Your task to perform on an android device: turn on the 24-hour format for clock Image 0: 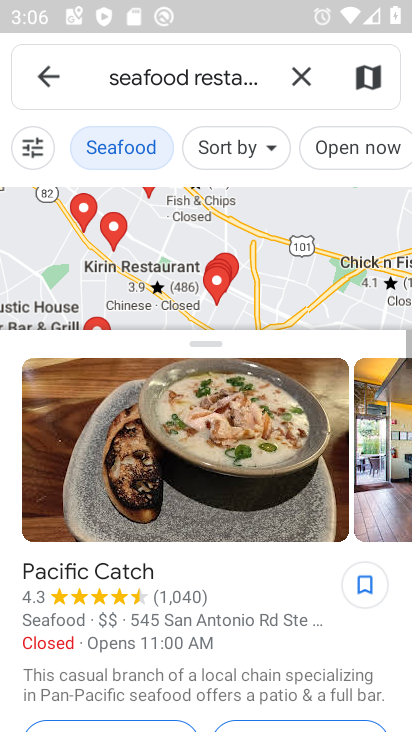
Step 0: press home button
Your task to perform on an android device: turn on the 24-hour format for clock Image 1: 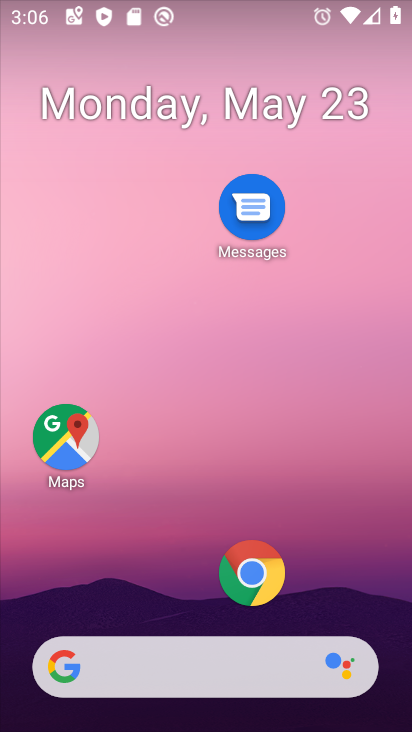
Step 1: drag from (288, 647) to (373, 73)
Your task to perform on an android device: turn on the 24-hour format for clock Image 2: 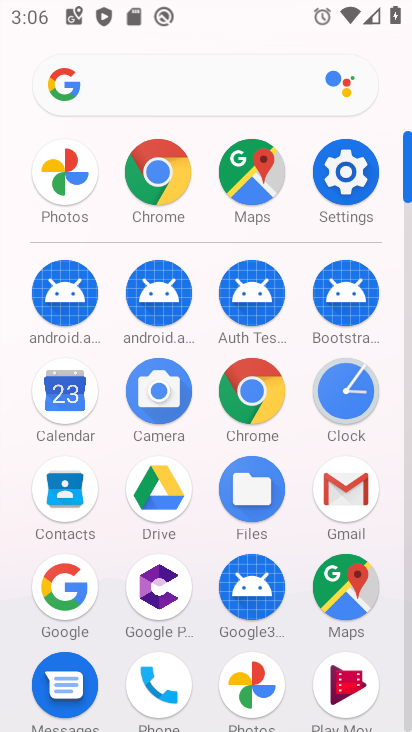
Step 2: click (351, 395)
Your task to perform on an android device: turn on the 24-hour format for clock Image 3: 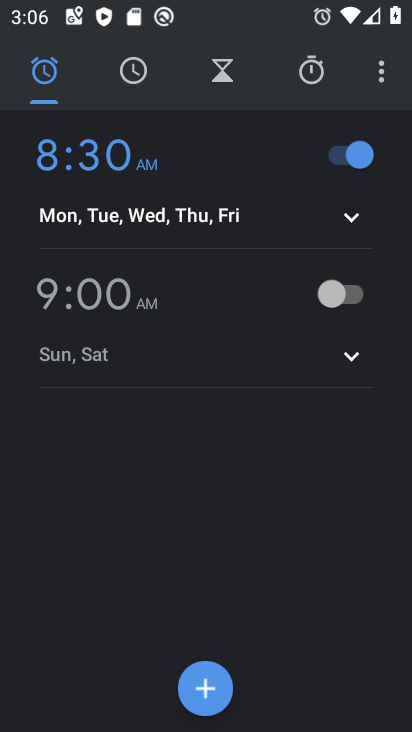
Step 3: click (375, 66)
Your task to perform on an android device: turn on the 24-hour format for clock Image 4: 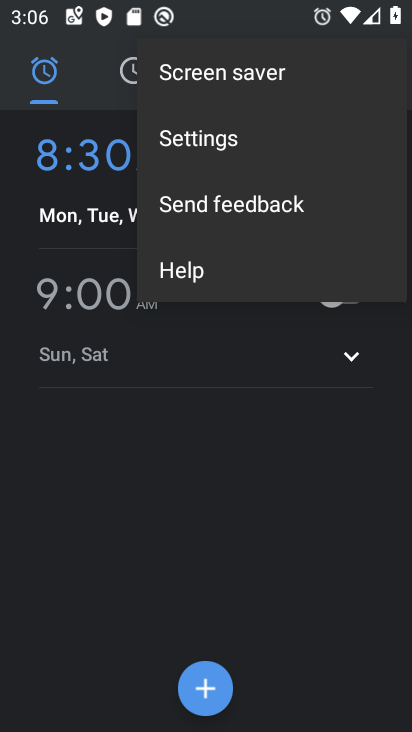
Step 4: click (232, 143)
Your task to perform on an android device: turn on the 24-hour format for clock Image 5: 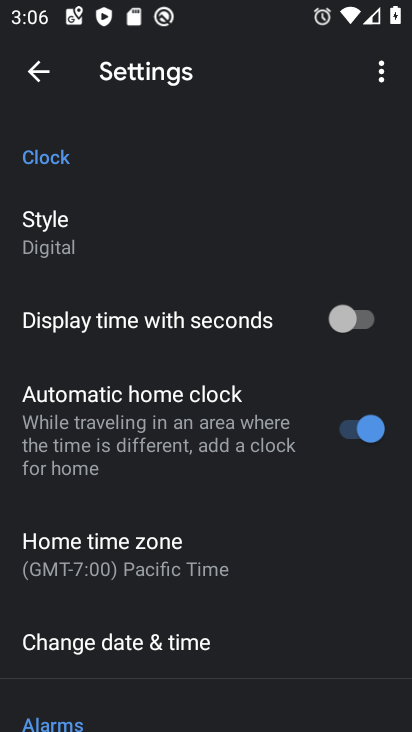
Step 5: drag from (200, 546) to (252, 326)
Your task to perform on an android device: turn on the 24-hour format for clock Image 6: 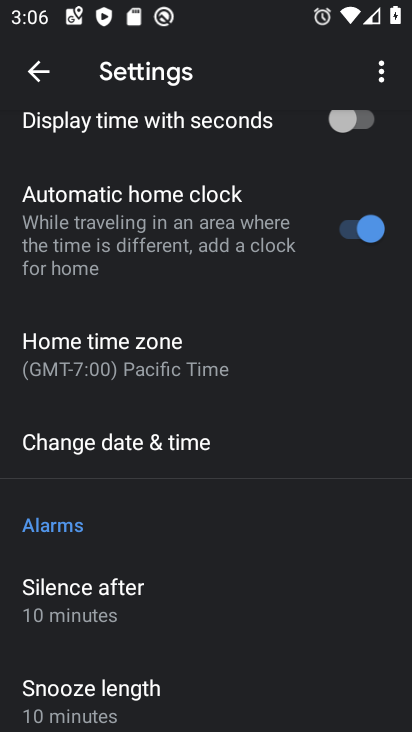
Step 6: click (168, 428)
Your task to perform on an android device: turn on the 24-hour format for clock Image 7: 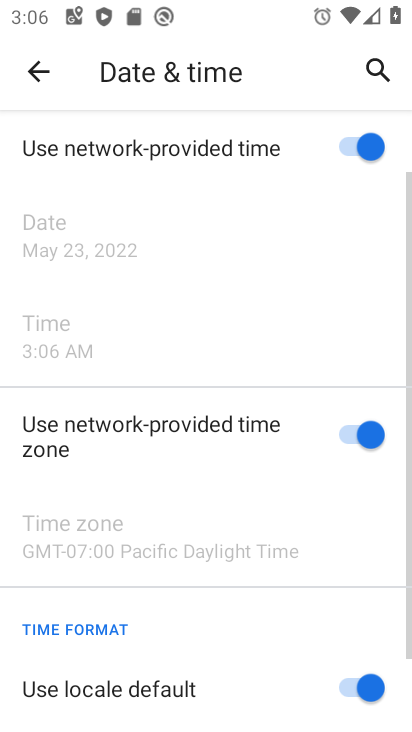
Step 7: drag from (181, 634) to (202, 174)
Your task to perform on an android device: turn on the 24-hour format for clock Image 8: 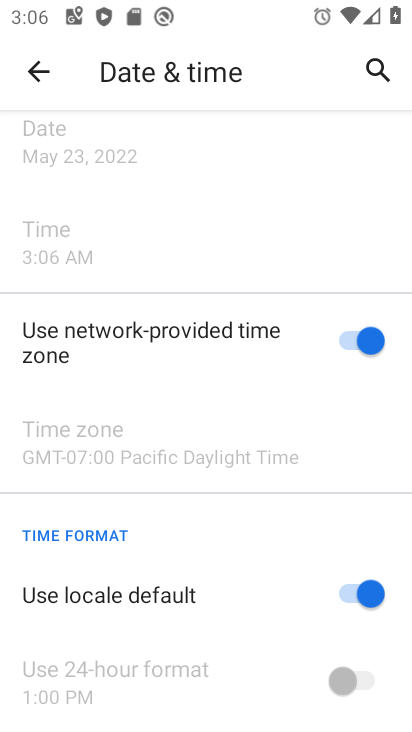
Step 8: click (357, 598)
Your task to perform on an android device: turn on the 24-hour format for clock Image 9: 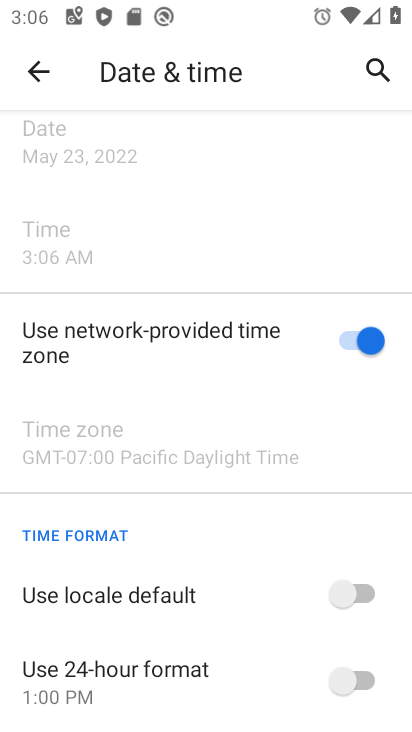
Step 9: click (370, 683)
Your task to perform on an android device: turn on the 24-hour format for clock Image 10: 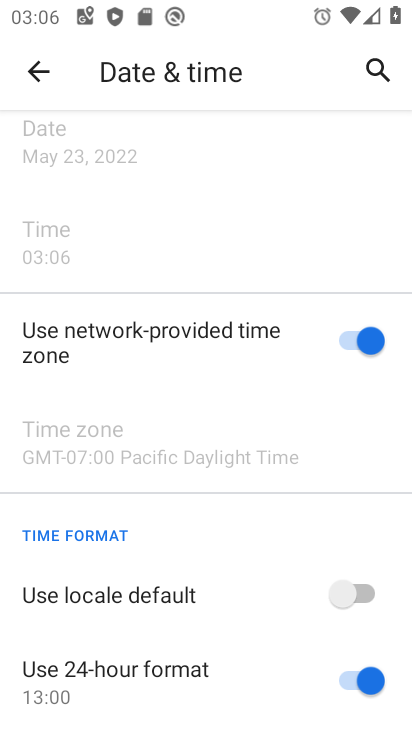
Step 10: task complete